Your task to perform on an android device: turn on javascript in the chrome app Image 0: 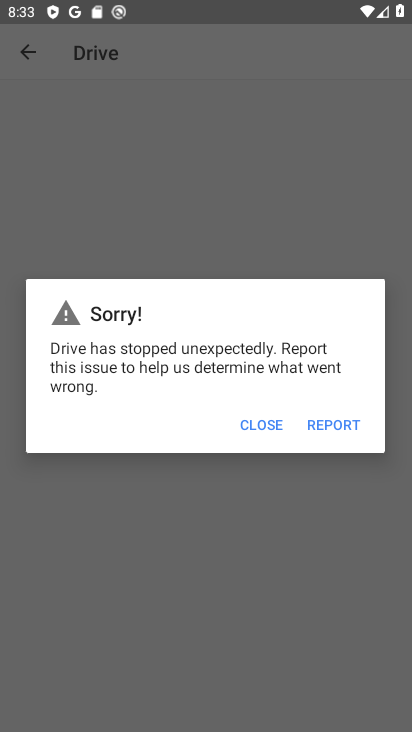
Step 0: press home button
Your task to perform on an android device: turn on javascript in the chrome app Image 1: 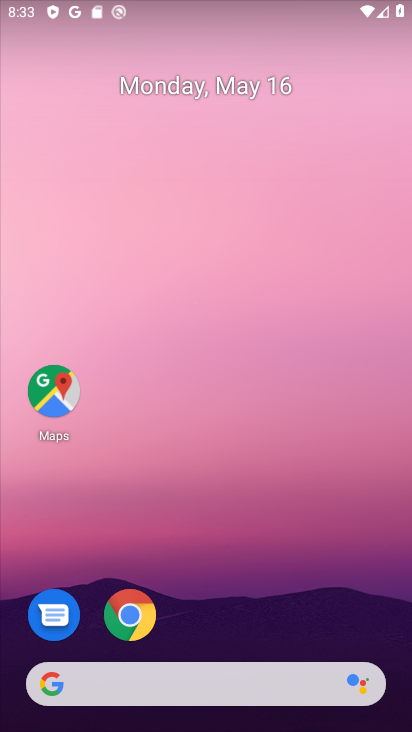
Step 1: drag from (26, 660) to (244, 111)
Your task to perform on an android device: turn on javascript in the chrome app Image 2: 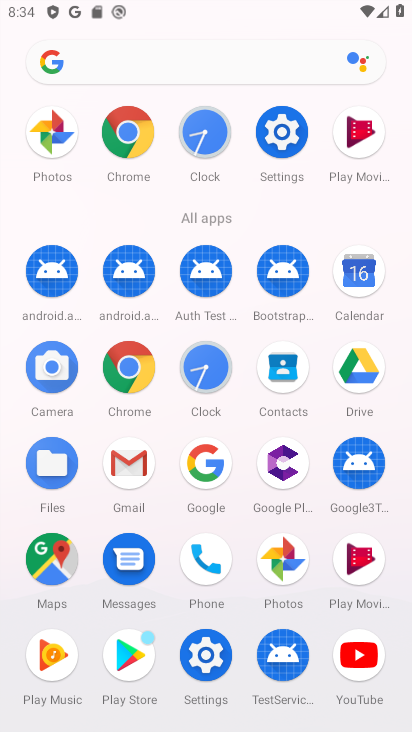
Step 2: click (122, 123)
Your task to perform on an android device: turn on javascript in the chrome app Image 3: 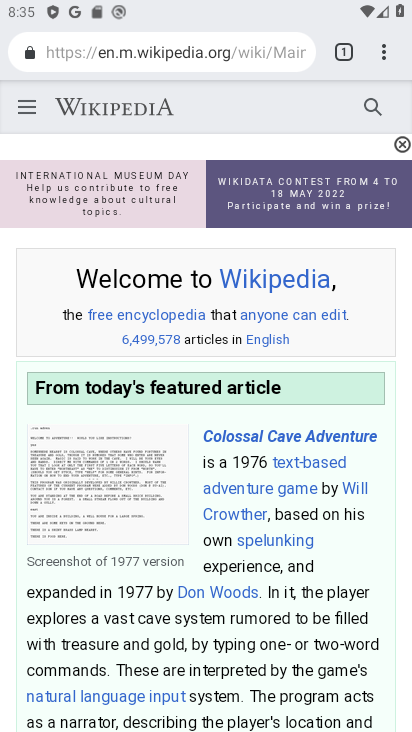
Step 3: click (335, 50)
Your task to perform on an android device: turn on javascript in the chrome app Image 4: 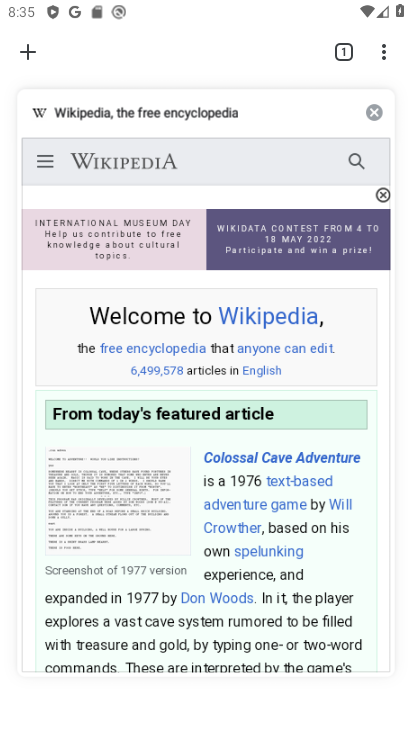
Step 4: click (366, 117)
Your task to perform on an android device: turn on javascript in the chrome app Image 5: 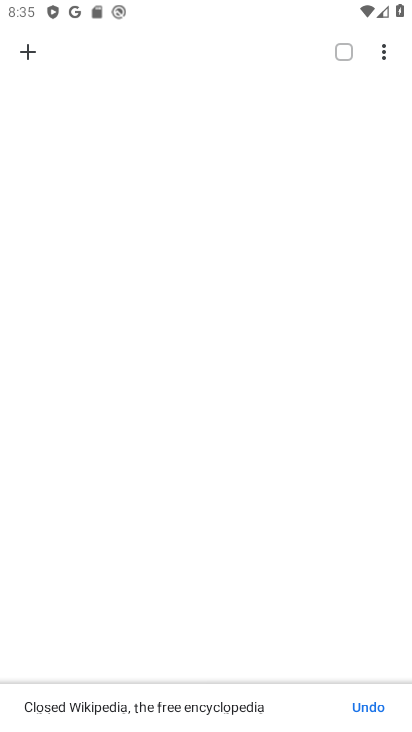
Step 5: click (26, 60)
Your task to perform on an android device: turn on javascript in the chrome app Image 6: 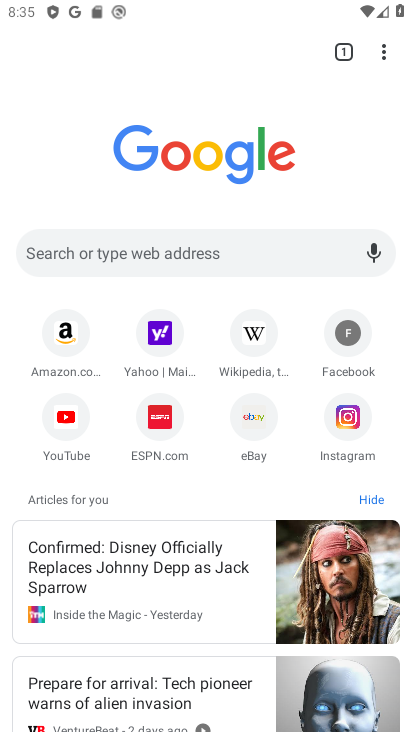
Step 6: click (380, 49)
Your task to perform on an android device: turn on javascript in the chrome app Image 7: 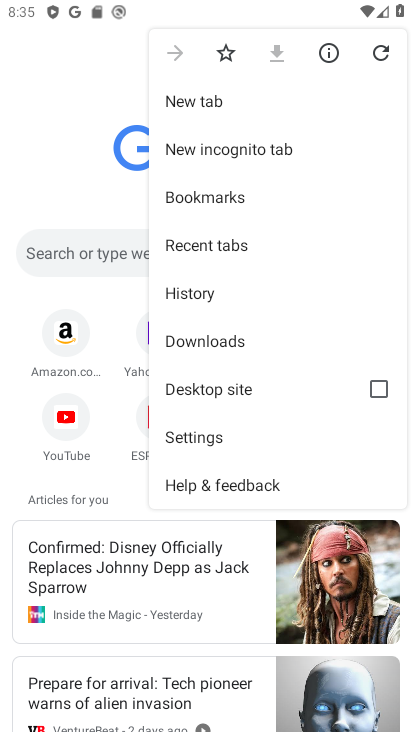
Step 7: click (190, 425)
Your task to perform on an android device: turn on javascript in the chrome app Image 8: 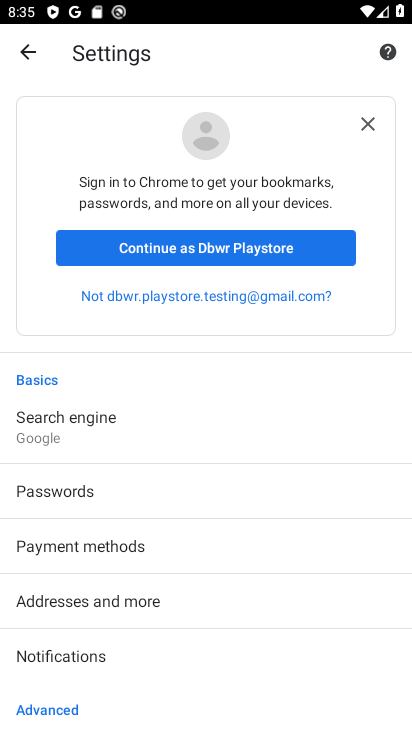
Step 8: drag from (4, 705) to (252, 68)
Your task to perform on an android device: turn on javascript in the chrome app Image 9: 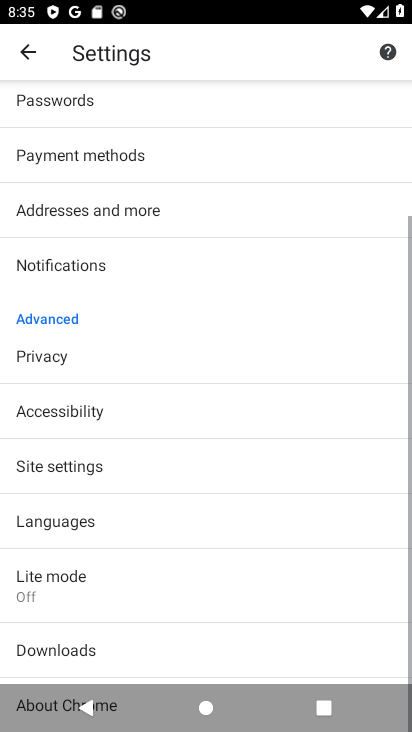
Step 9: drag from (23, 653) to (177, 283)
Your task to perform on an android device: turn on javascript in the chrome app Image 10: 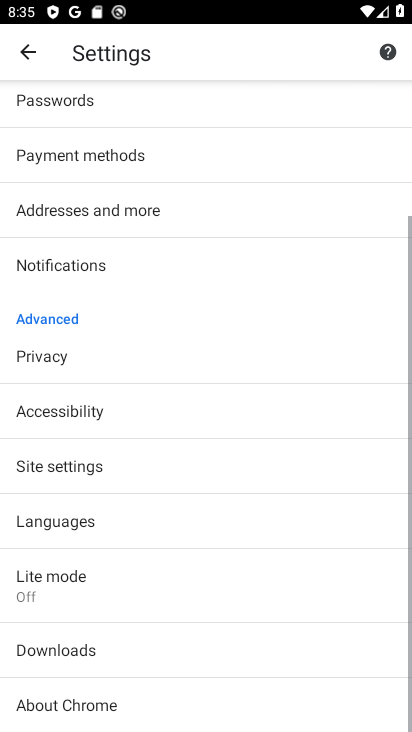
Step 10: click (66, 470)
Your task to perform on an android device: turn on javascript in the chrome app Image 11: 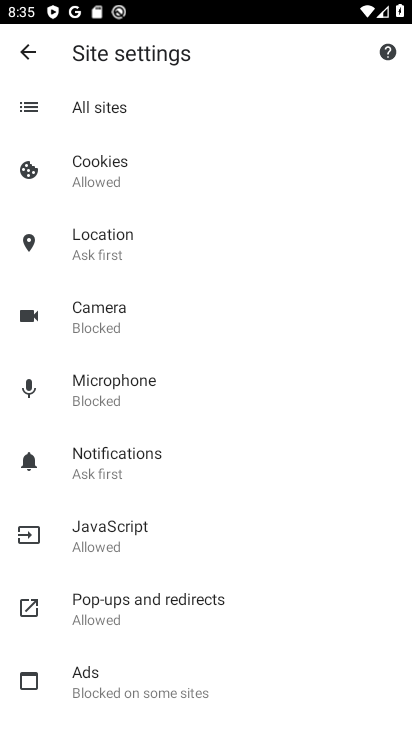
Step 11: click (129, 529)
Your task to perform on an android device: turn on javascript in the chrome app Image 12: 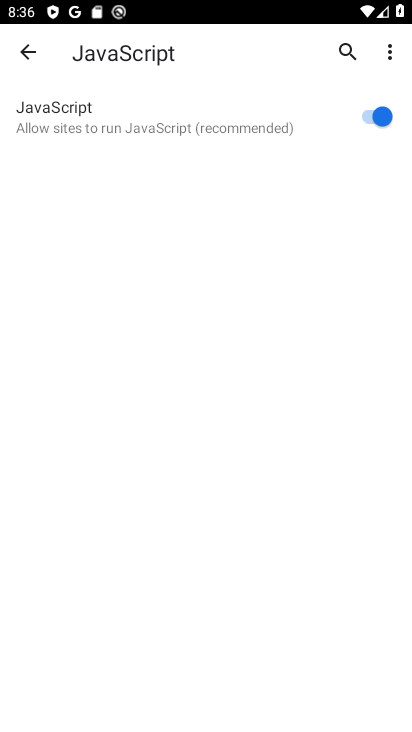
Step 12: task complete